Your task to perform on an android device: Go to battery settings Image 0: 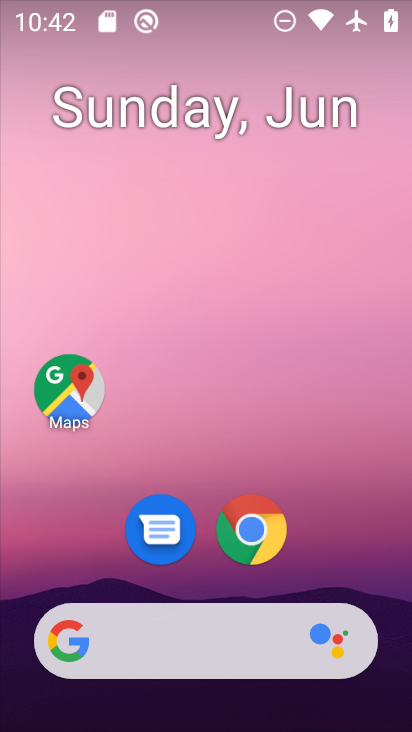
Step 0: drag from (395, 628) to (318, 71)
Your task to perform on an android device: Go to battery settings Image 1: 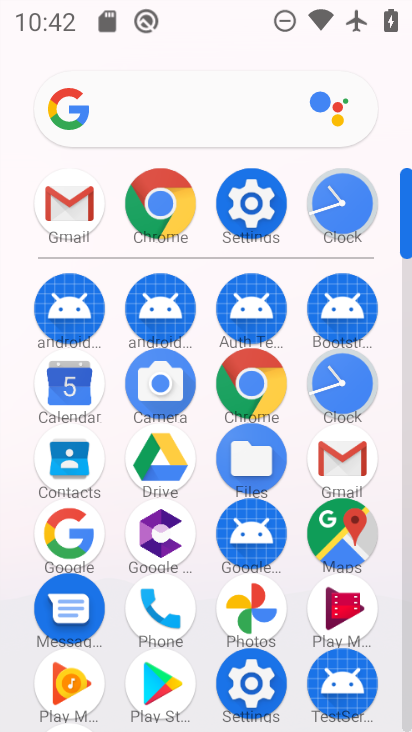
Step 1: click (402, 694)
Your task to perform on an android device: Go to battery settings Image 2: 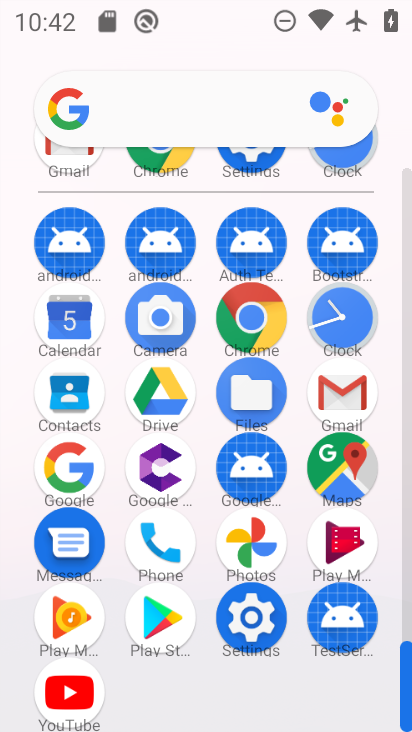
Step 2: click (250, 616)
Your task to perform on an android device: Go to battery settings Image 3: 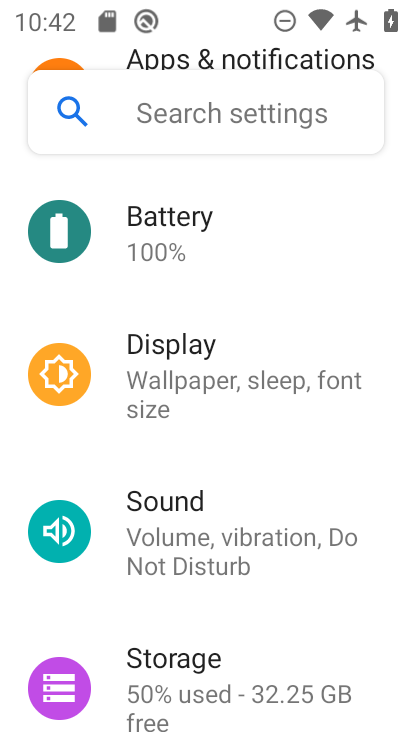
Step 3: drag from (359, 233) to (355, 423)
Your task to perform on an android device: Go to battery settings Image 4: 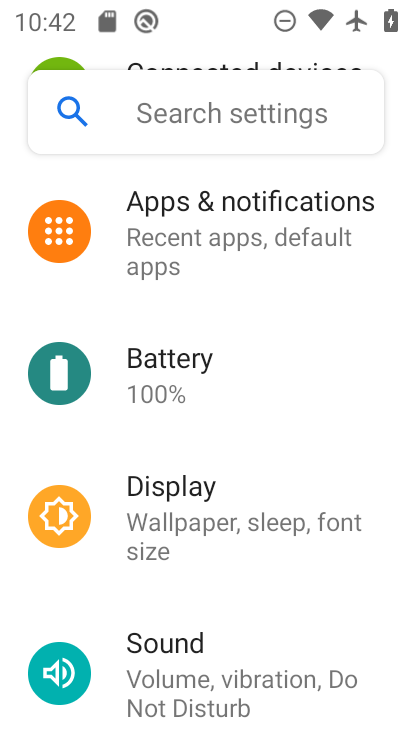
Step 4: click (165, 372)
Your task to perform on an android device: Go to battery settings Image 5: 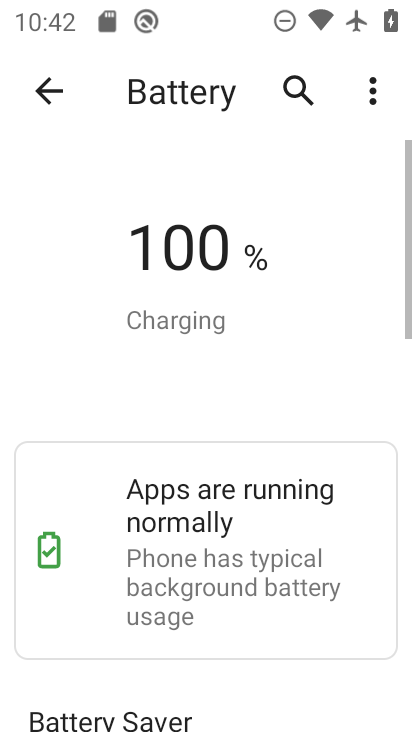
Step 5: task complete